Your task to perform on an android device: Open Google Maps Image 0: 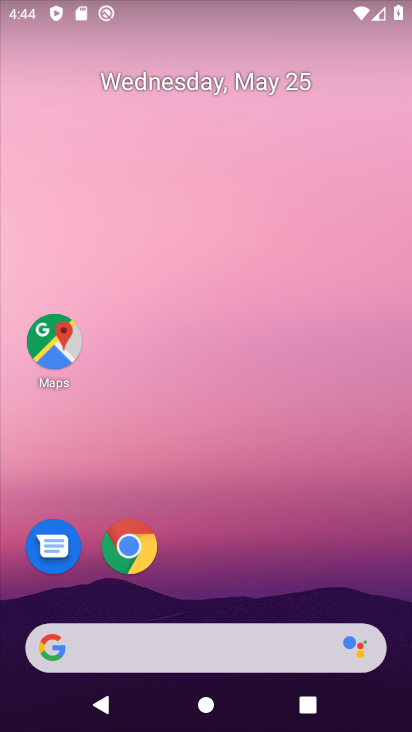
Step 0: click (54, 338)
Your task to perform on an android device: Open Google Maps Image 1: 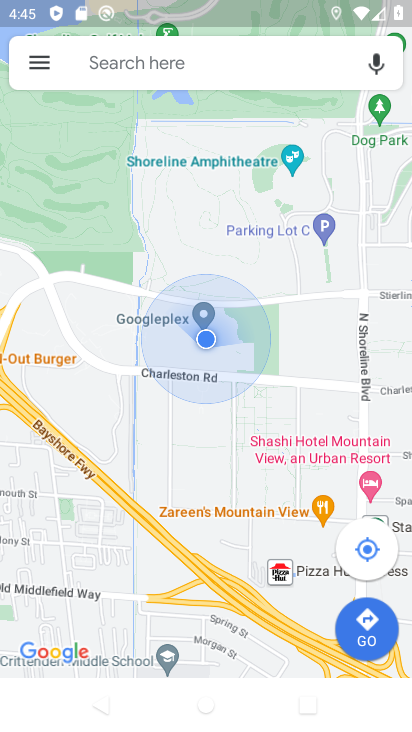
Step 1: task complete